Your task to perform on an android device: Install the Instagram app Image 0: 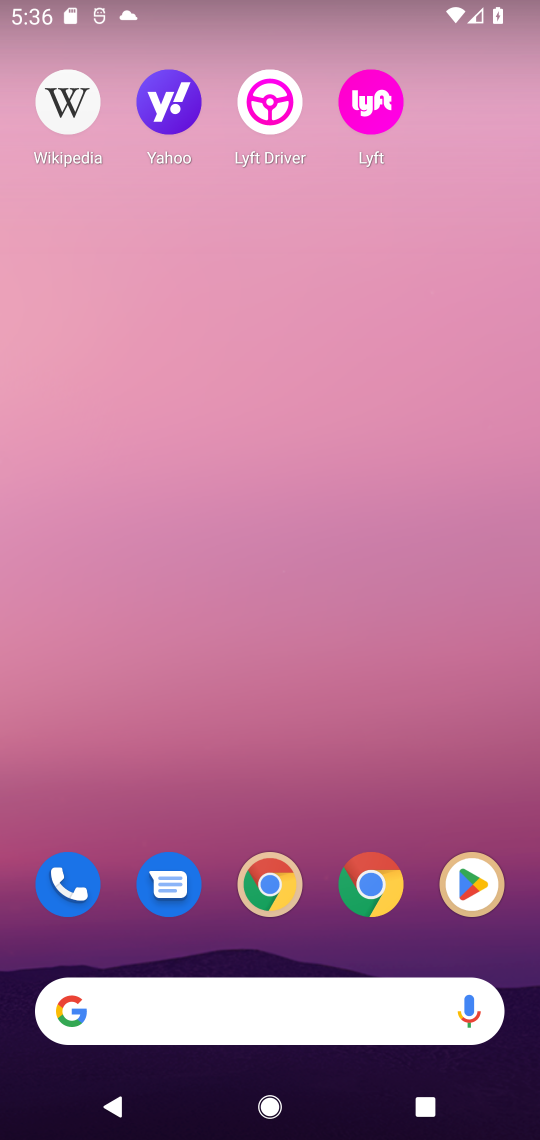
Step 0: press home button
Your task to perform on an android device: Install the Instagram app Image 1: 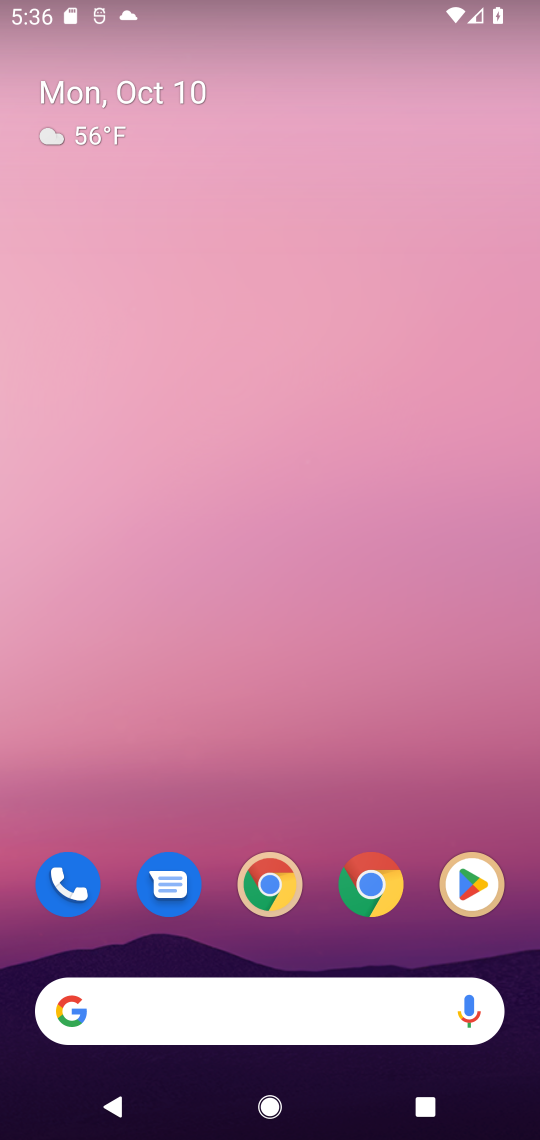
Step 1: click (484, 877)
Your task to perform on an android device: Install the Instagram app Image 2: 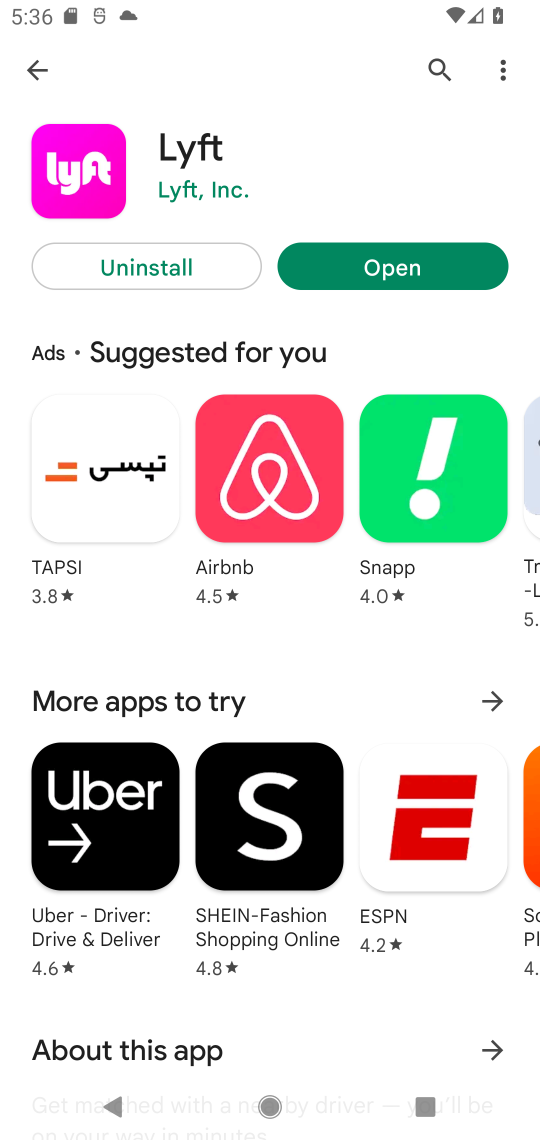
Step 2: click (432, 61)
Your task to perform on an android device: Install the Instagram app Image 3: 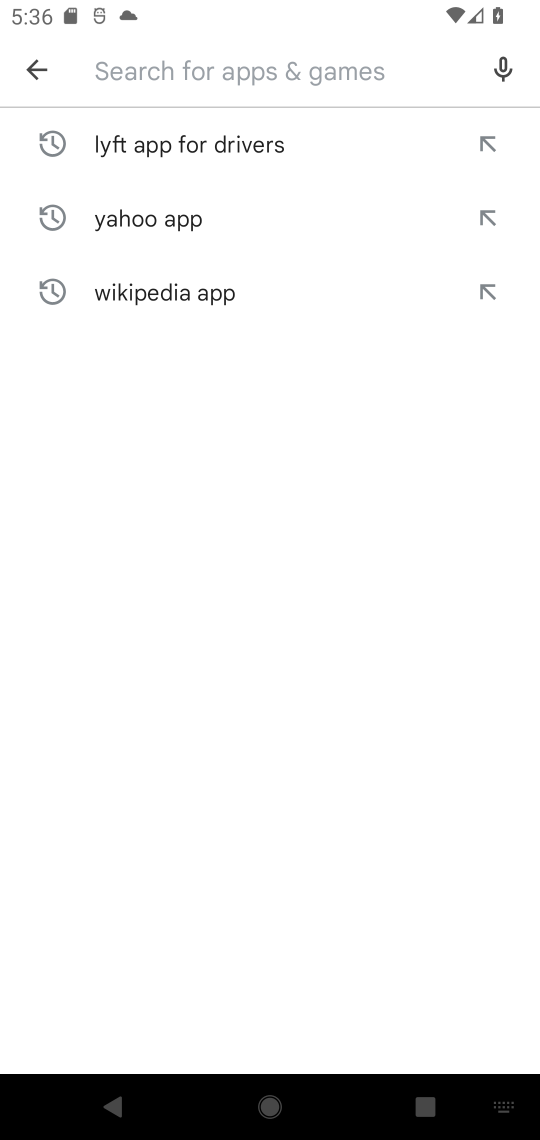
Step 3: type "instagram "
Your task to perform on an android device: Install the Instagram app Image 4: 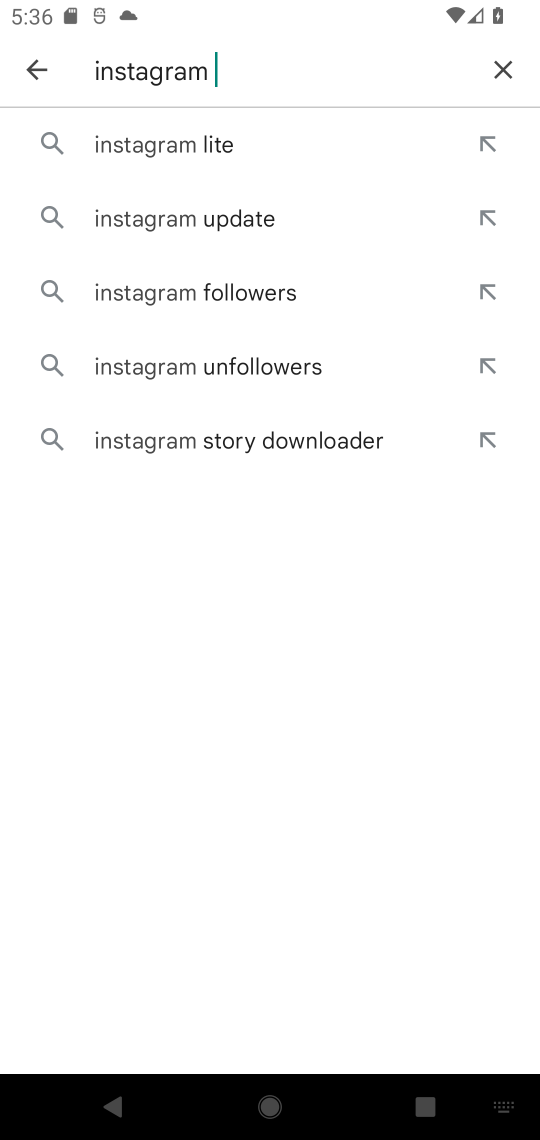
Step 4: click (207, 226)
Your task to perform on an android device: Install the Instagram app Image 5: 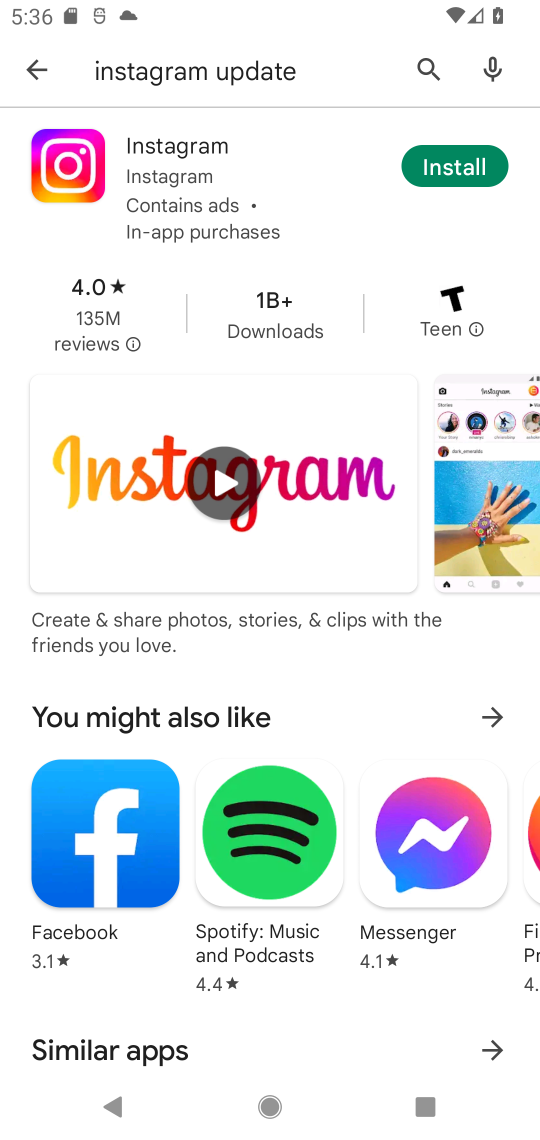
Step 5: click (459, 176)
Your task to perform on an android device: Install the Instagram app Image 6: 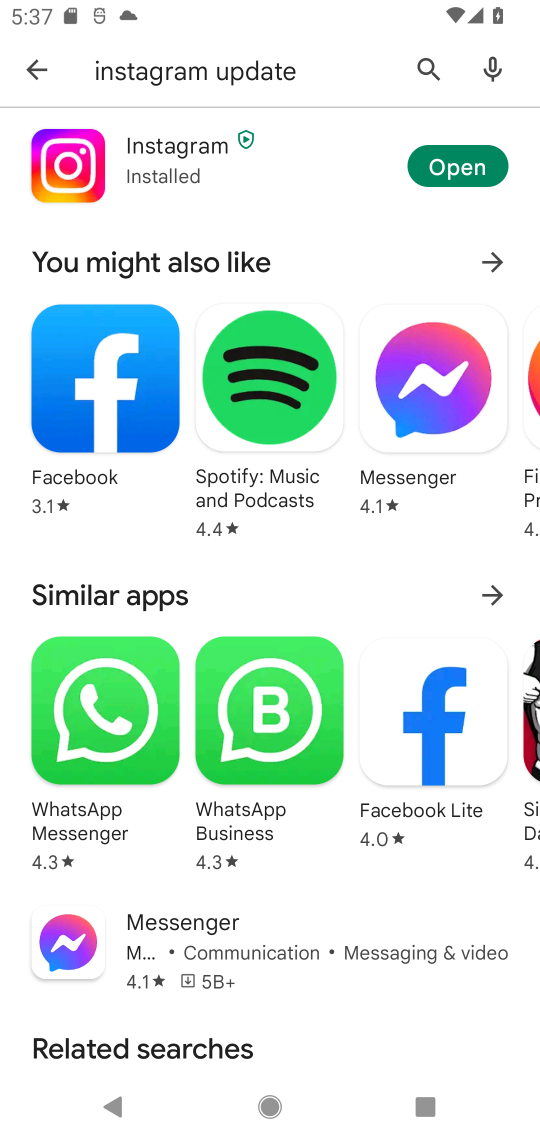
Step 6: task complete